Your task to perform on an android device: Search for razer blade on newegg.com, select the first entry, and add it to the cart. Image 0: 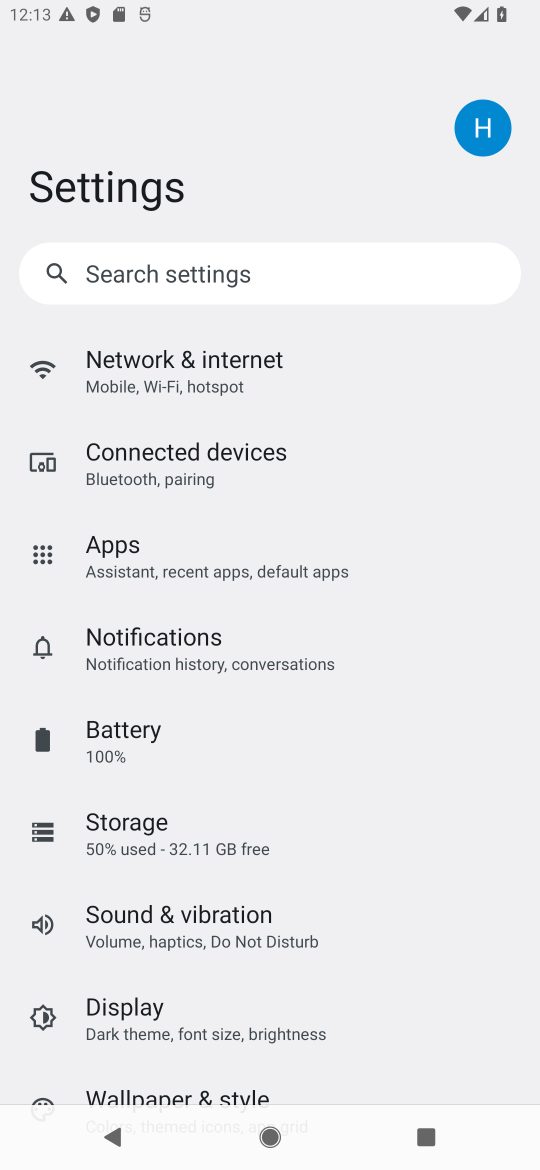
Step 0: task complete